Your task to perform on an android device: Open calendar and show me the first week of next month Image 0: 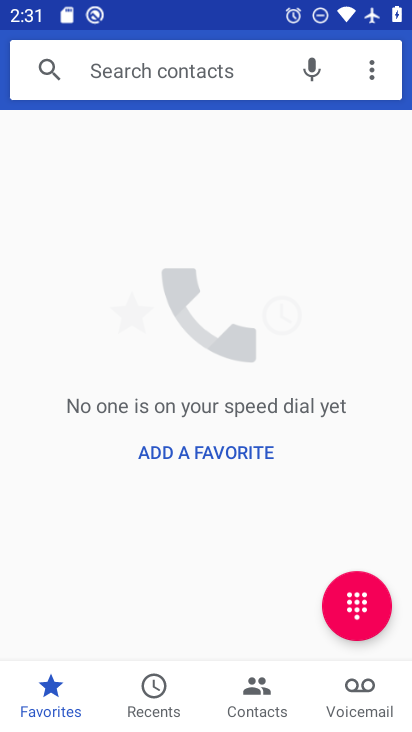
Step 0: press home button
Your task to perform on an android device: Open calendar and show me the first week of next month Image 1: 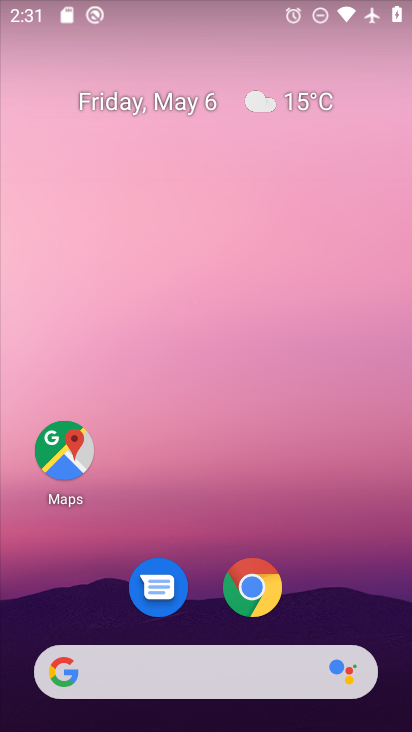
Step 1: drag from (330, 558) to (253, 23)
Your task to perform on an android device: Open calendar and show me the first week of next month Image 2: 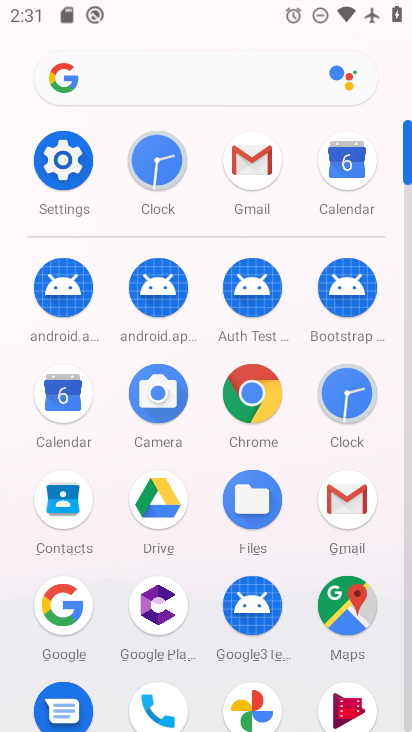
Step 2: click (63, 397)
Your task to perform on an android device: Open calendar and show me the first week of next month Image 3: 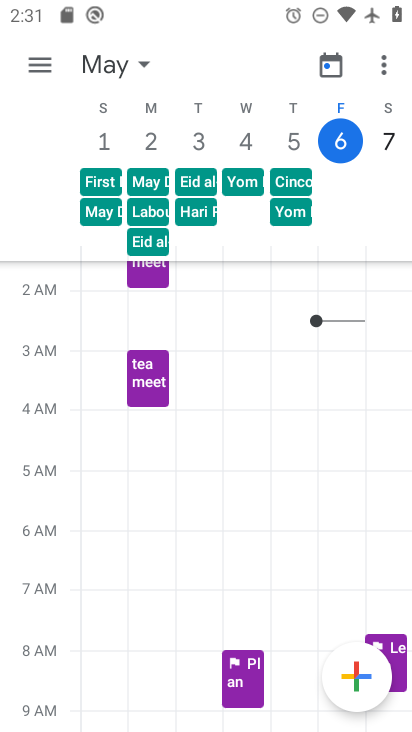
Step 3: click (140, 63)
Your task to perform on an android device: Open calendar and show me the first week of next month Image 4: 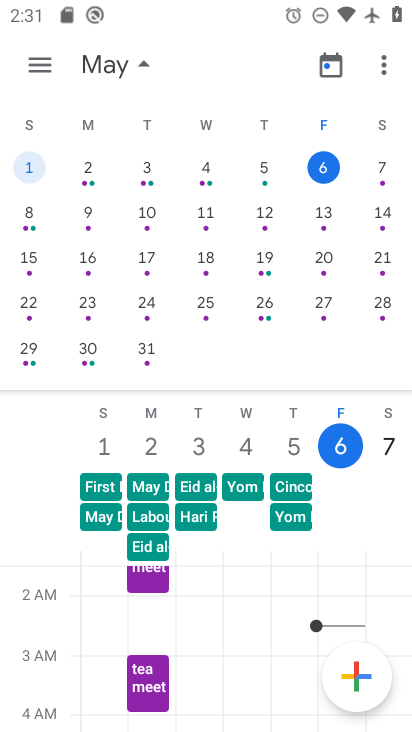
Step 4: drag from (353, 238) to (0, 263)
Your task to perform on an android device: Open calendar and show me the first week of next month Image 5: 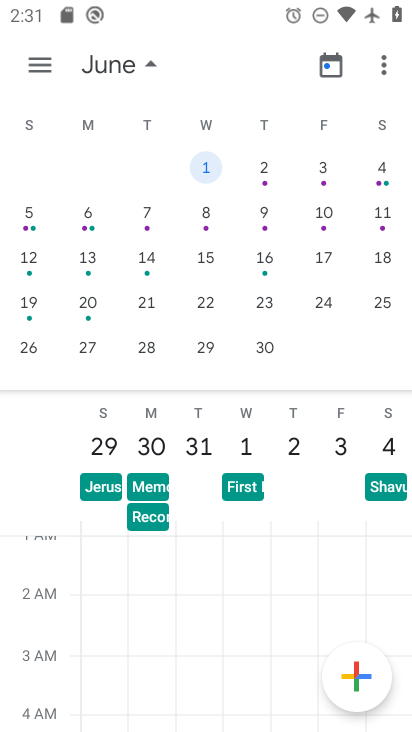
Step 5: click (216, 172)
Your task to perform on an android device: Open calendar and show me the first week of next month Image 6: 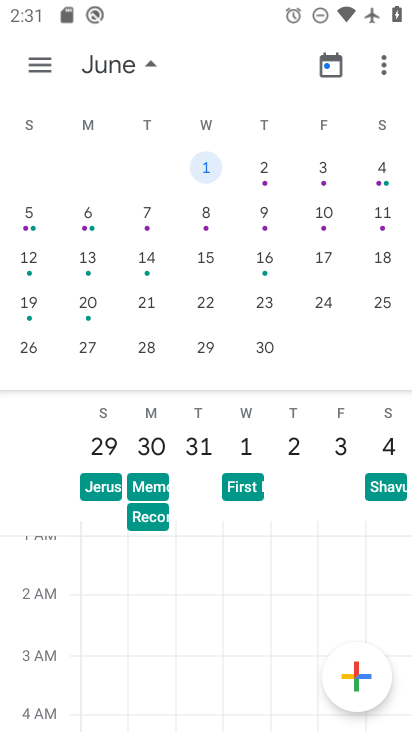
Step 6: task complete